Your task to perform on an android device: Open Chrome and go to settings Image 0: 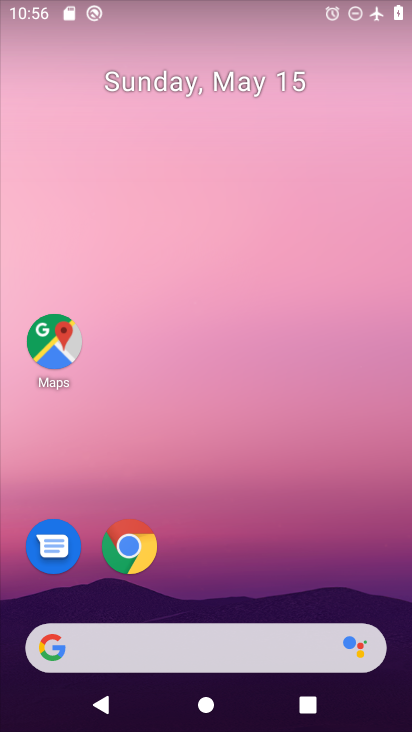
Step 0: click (130, 546)
Your task to perform on an android device: Open Chrome and go to settings Image 1: 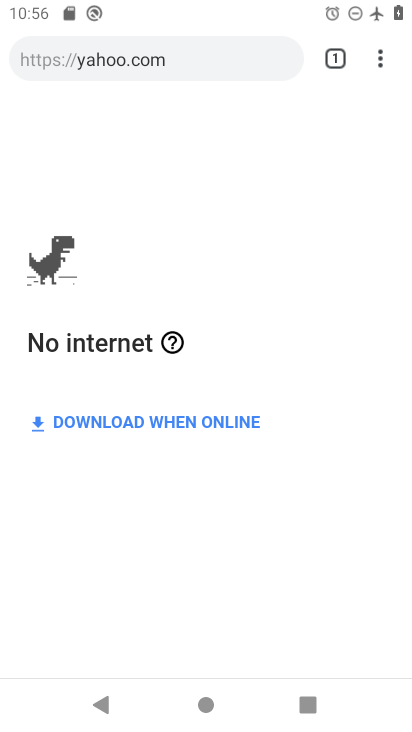
Step 1: task complete